Your task to perform on an android device: clear history in the chrome app Image 0: 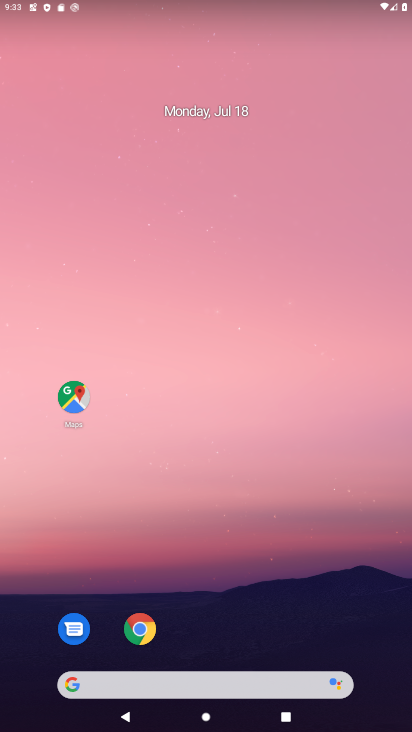
Step 0: click (311, 563)
Your task to perform on an android device: clear history in the chrome app Image 1: 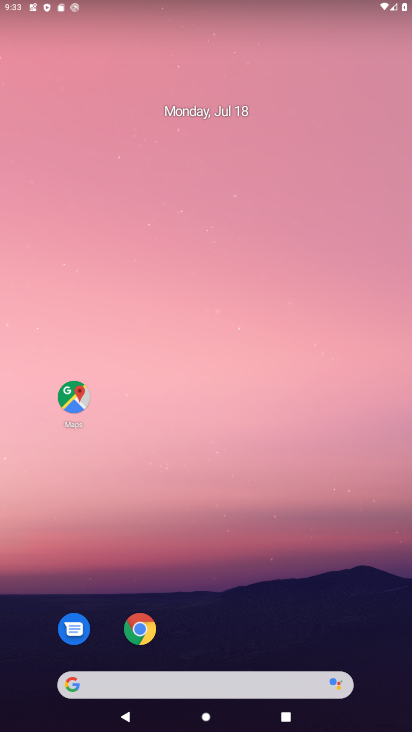
Step 1: drag from (320, 611) to (217, 147)
Your task to perform on an android device: clear history in the chrome app Image 2: 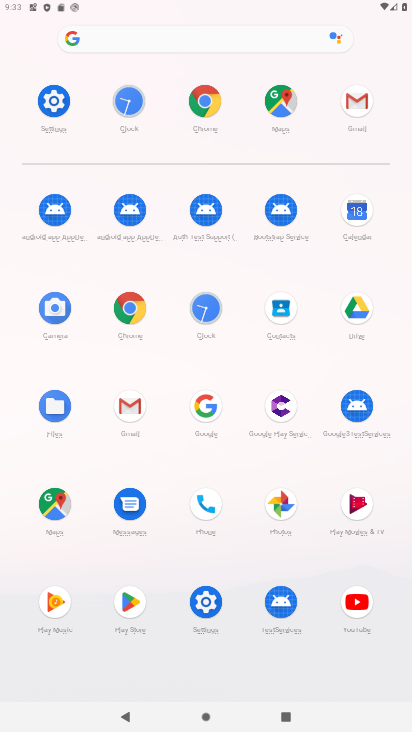
Step 2: click (130, 302)
Your task to perform on an android device: clear history in the chrome app Image 3: 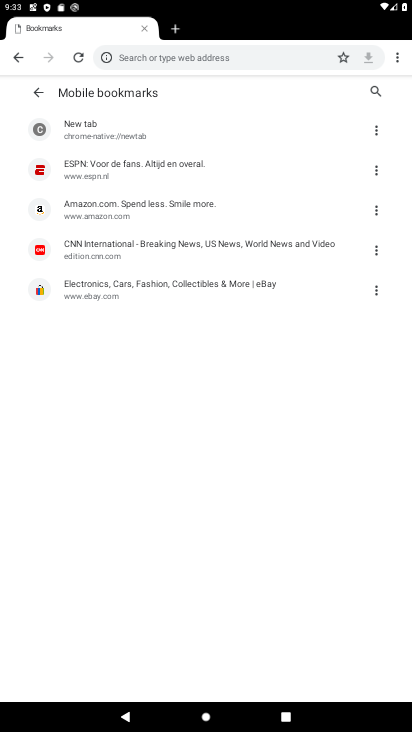
Step 3: drag from (395, 50) to (294, 208)
Your task to perform on an android device: clear history in the chrome app Image 4: 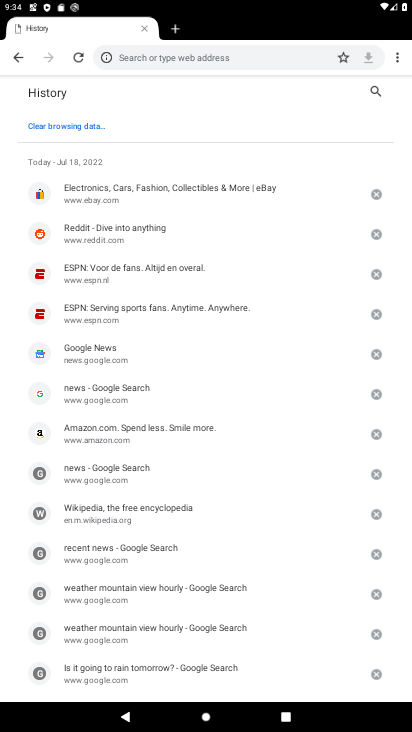
Step 4: click (73, 124)
Your task to perform on an android device: clear history in the chrome app Image 5: 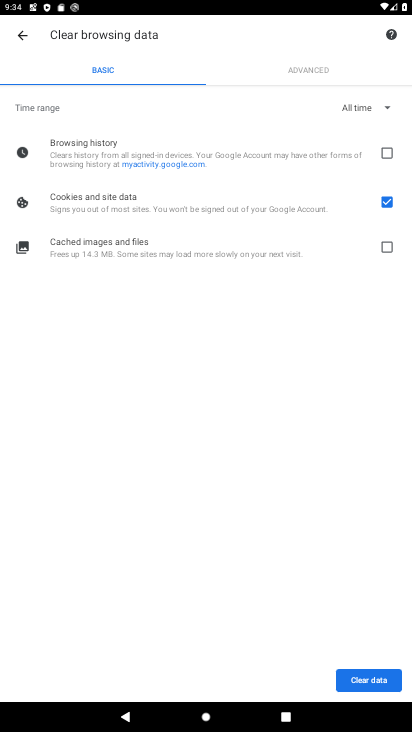
Step 5: click (384, 153)
Your task to perform on an android device: clear history in the chrome app Image 6: 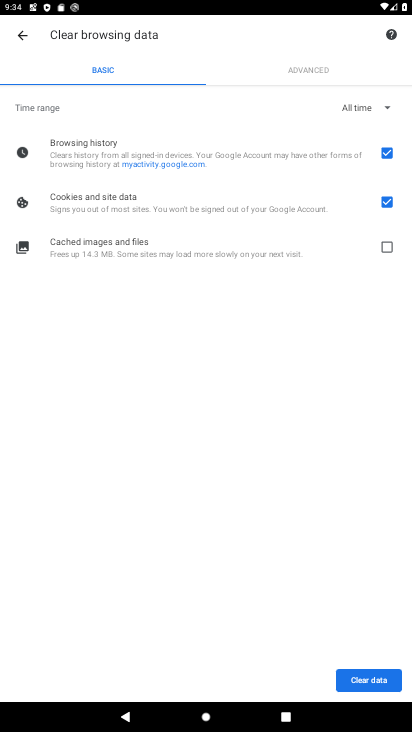
Step 6: click (369, 677)
Your task to perform on an android device: clear history in the chrome app Image 7: 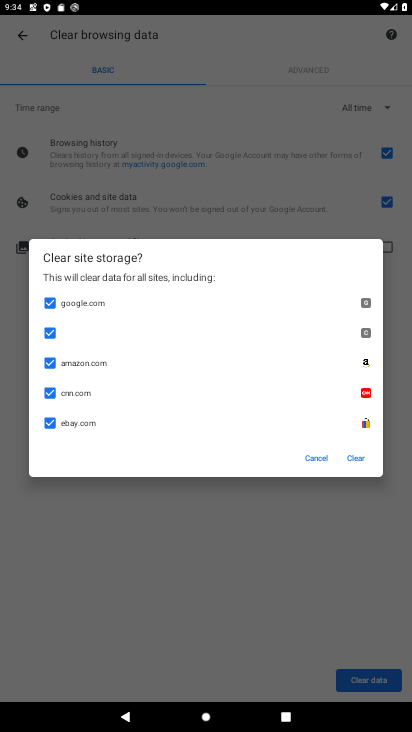
Step 7: click (357, 454)
Your task to perform on an android device: clear history in the chrome app Image 8: 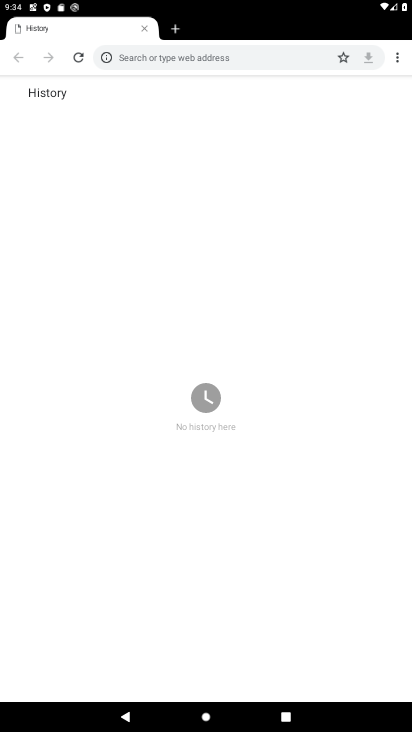
Step 8: task complete